Your task to perform on an android device: all mails in gmail Image 0: 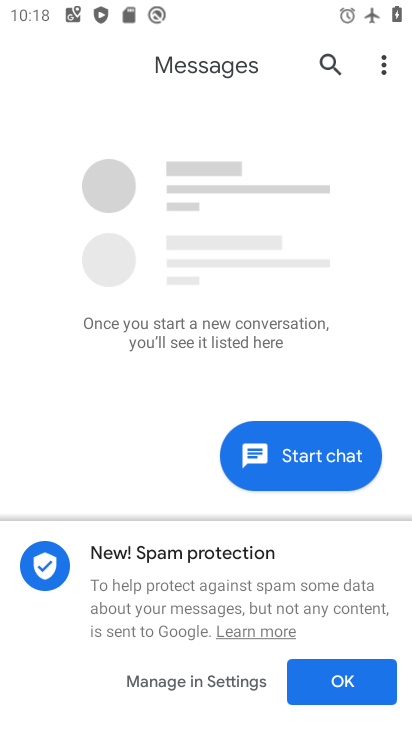
Step 0: press home button
Your task to perform on an android device: all mails in gmail Image 1: 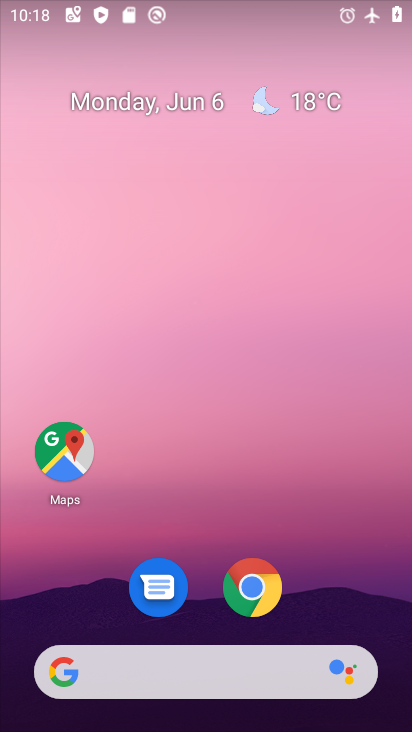
Step 1: drag from (376, 618) to (306, 114)
Your task to perform on an android device: all mails in gmail Image 2: 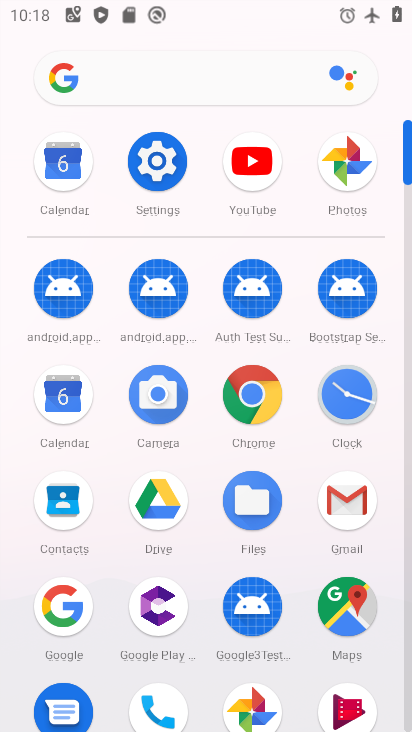
Step 2: drag from (266, 568) to (300, 319)
Your task to perform on an android device: all mails in gmail Image 3: 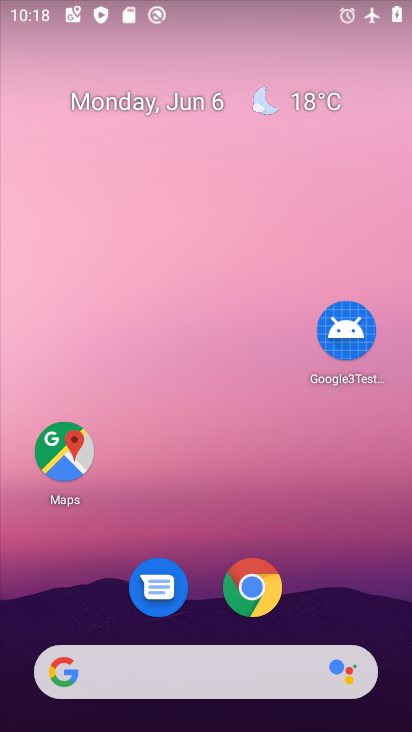
Step 3: drag from (290, 407) to (278, 45)
Your task to perform on an android device: all mails in gmail Image 4: 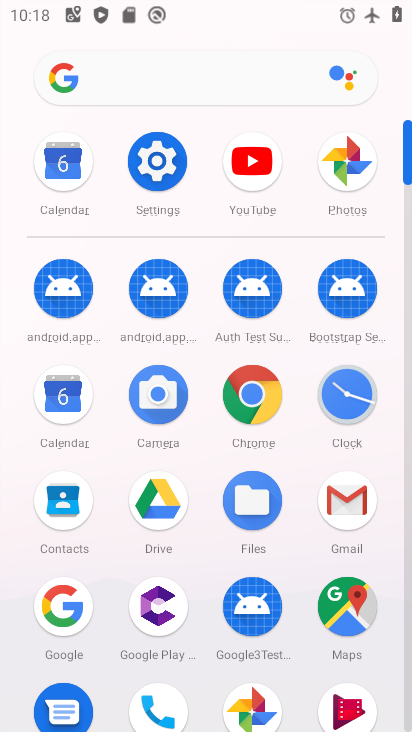
Step 4: click (347, 505)
Your task to perform on an android device: all mails in gmail Image 5: 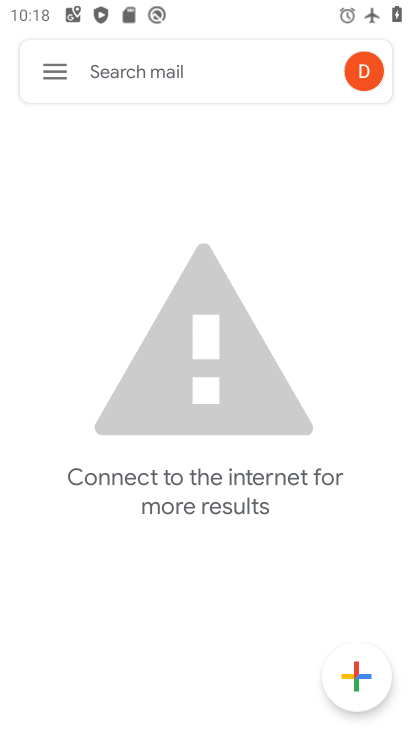
Step 5: click (50, 65)
Your task to perform on an android device: all mails in gmail Image 6: 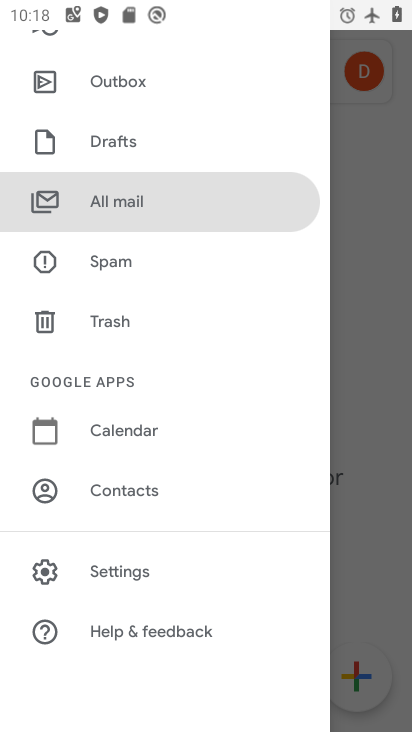
Step 6: click (143, 210)
Your task to perform on an android device: all mails in gmail Image 7: 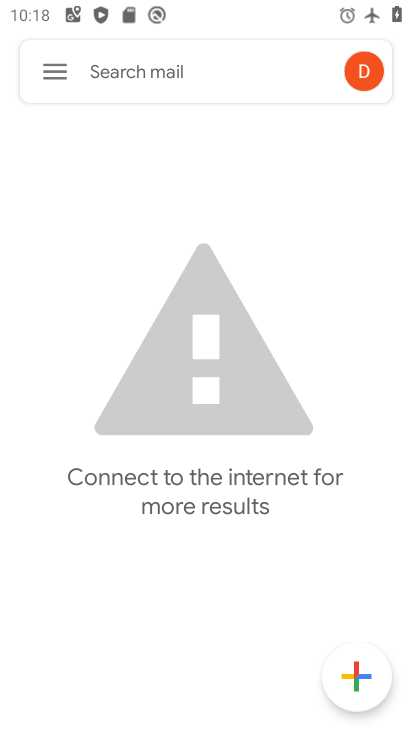
Step 7: task complete